Your task to perform on an android device: Go to battery settings Image 0: 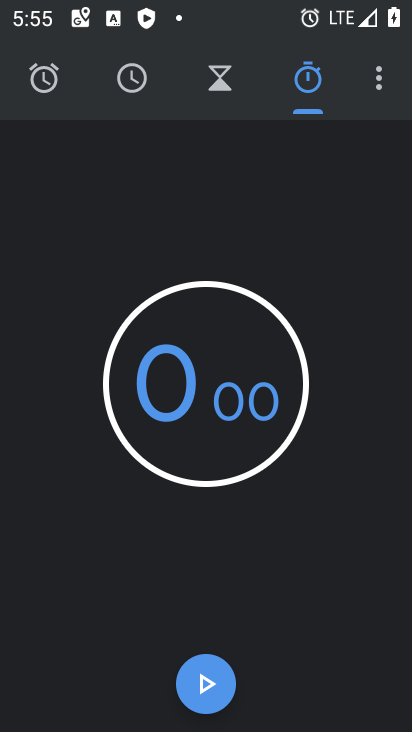
Step 0: press home button
Your task to perform on an android device: Go to battery settings Image 1: 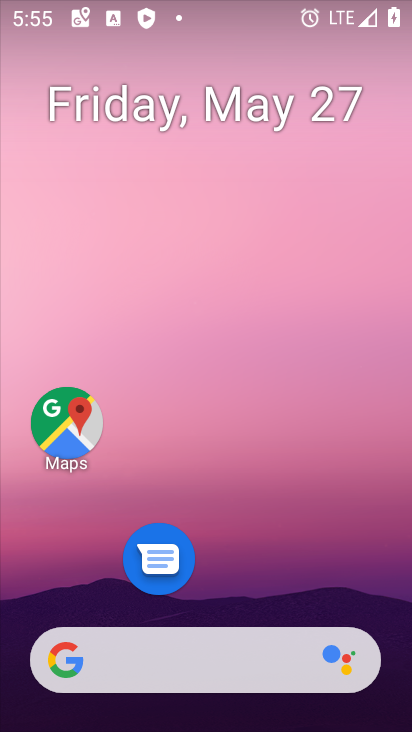
Step 1: drag from (278, 658) to (287, 48)
Your task to perform on an android device: Go to battery settings Image 2: 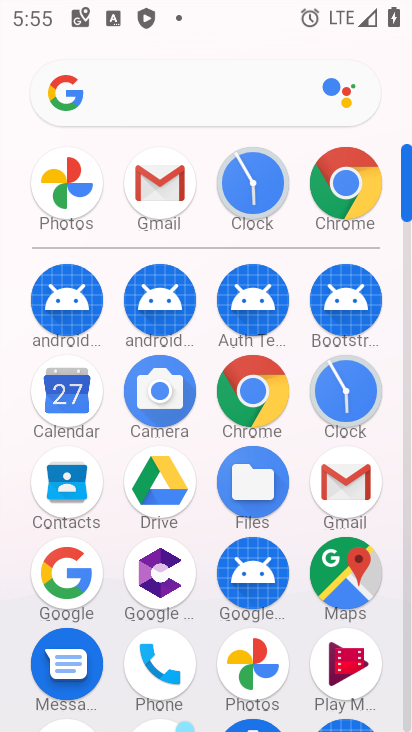
Step 2: drag from (313, 626) to (301, 291)
Your task to perform on an android device: Go to battery settings Image 3: 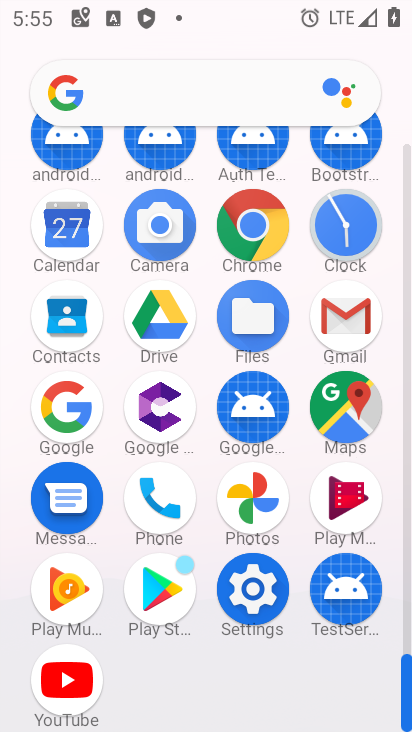
Step 3: click (267, 583)
Your task to perform on an android device: Go to battery settings Image 4: 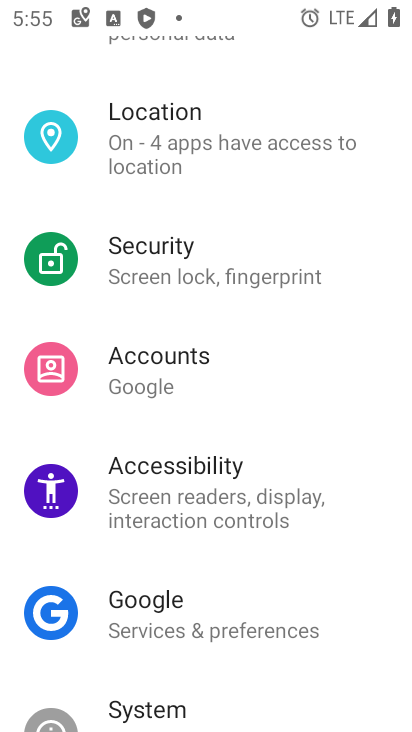
Step 4: drag from (247, 195) to (243, 710)
Your task to perform on an android device: Go to battery settings Image 5: 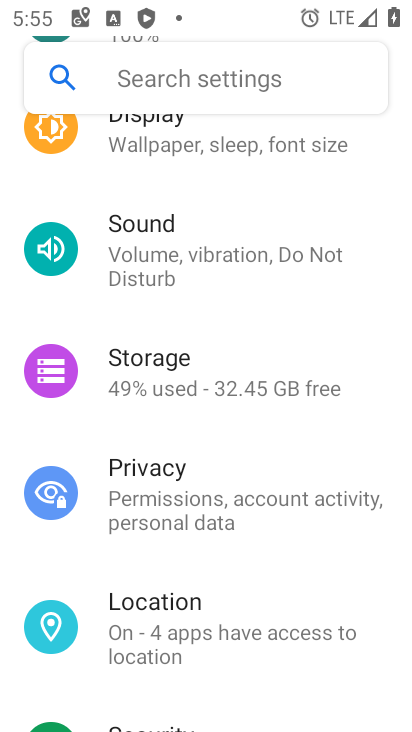
Step 5: drag from (167, 233) to (233, 702)
Your task to perform on an android device: Go to battery settings Image 6: 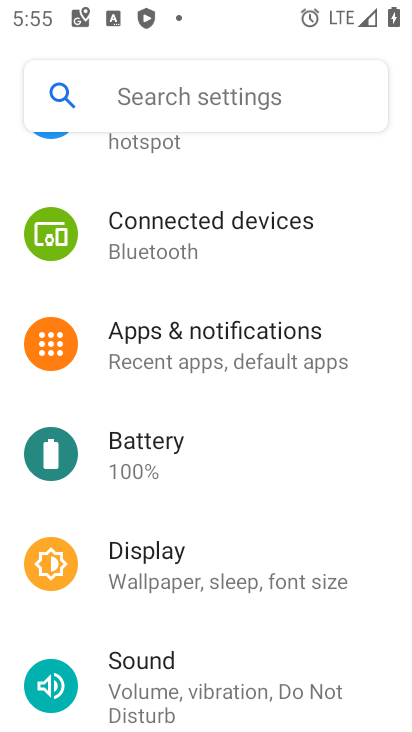
Step 6: click (175, 472)
Your task to perform on an android device: Go to battery settings Image 7: 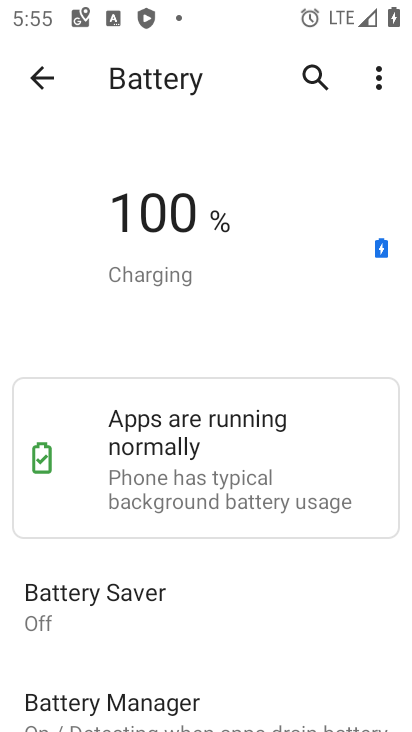
Step 7: task complete